Your task to perform on an android device: show emergency info Image 0: 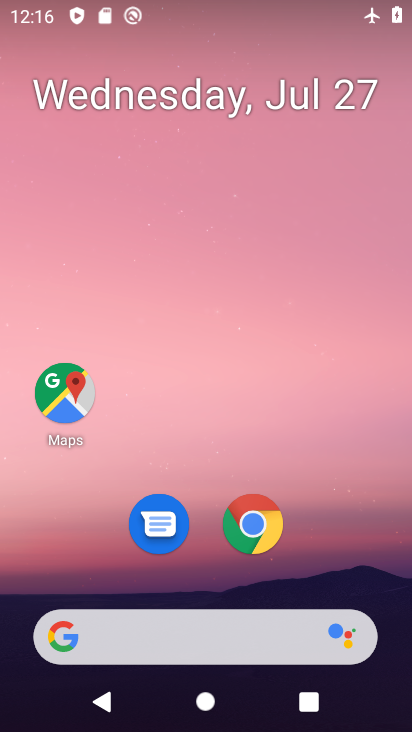
Step 0: drag from (315, 541) to (343, 90)
Your task to perform on an android device: show emergency info Image 1: 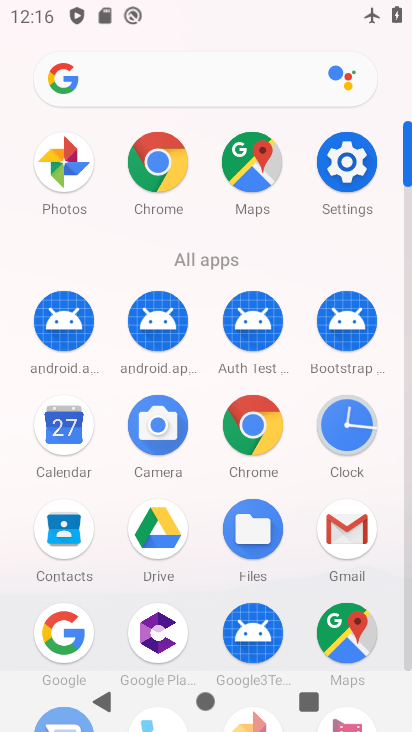
Step 1: click (354, 150)
Your task to perform on an android device: show emergency info Image 2: 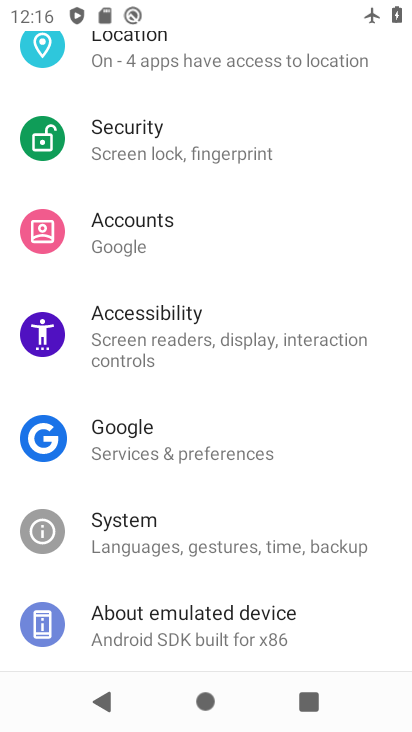
Step 2: click (251, 611)
Your task to perform on an android device: show emergency info Image 3: 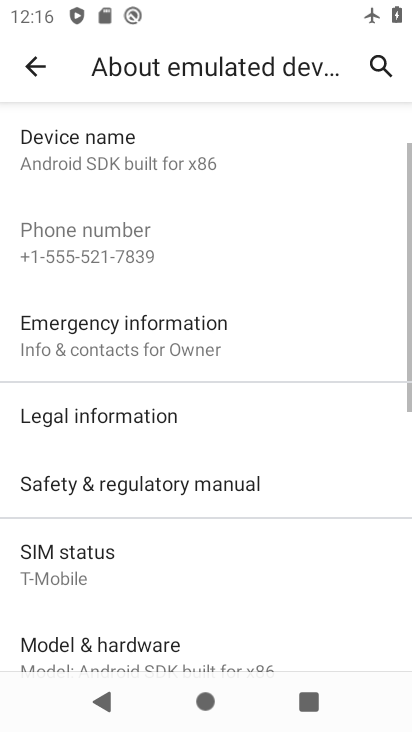
Step 3: click (206, 341)
Your task to perform on an android device: show emergency info Image 4: 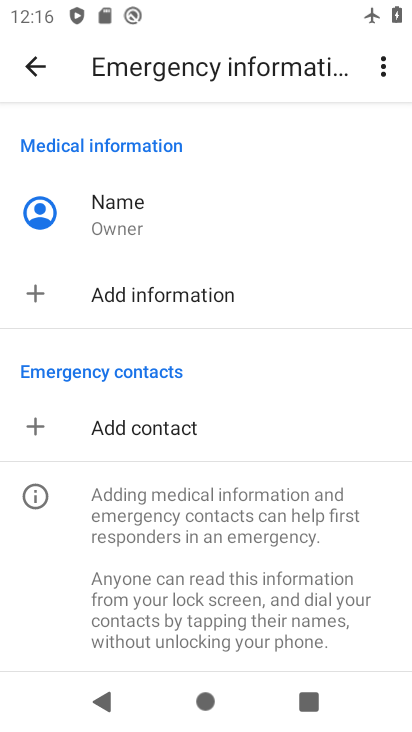
Step 4: task complete